Your task to perform on an android device: turn off sleep mode Image 0: 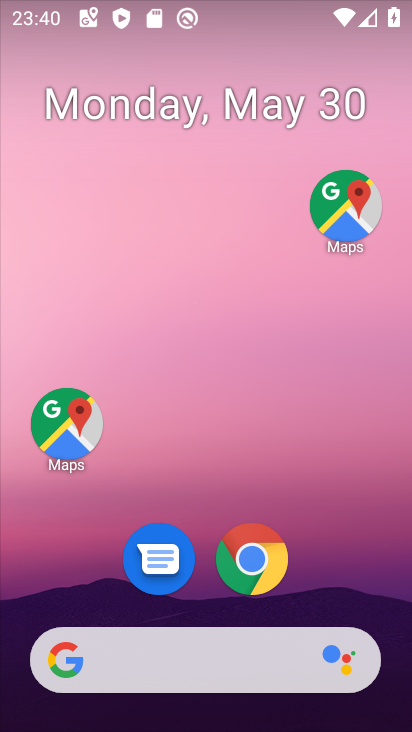
Step 0: drag from (353, 538) to (245, 154)
Your task to perform on an android device: turn off sleep mode Image 1: 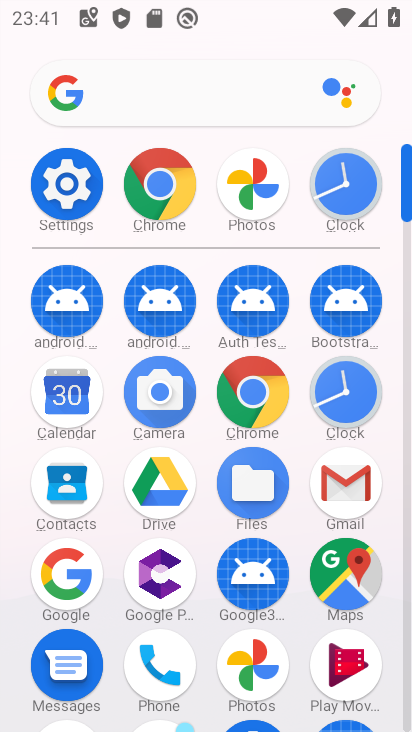
Step 1: click (53, 187)
Your task to perform on an android device: turn off sleep mode Image 2: 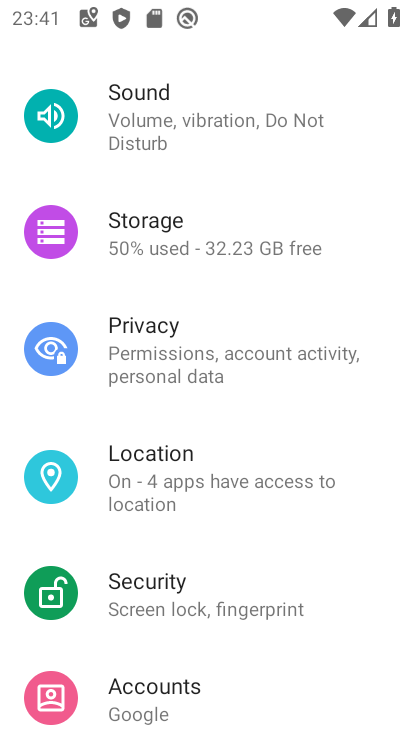
Step 2: drag from (230, 147) to (202, 562)
Your task to perform on an android device: turn off sleep mode Image 3: 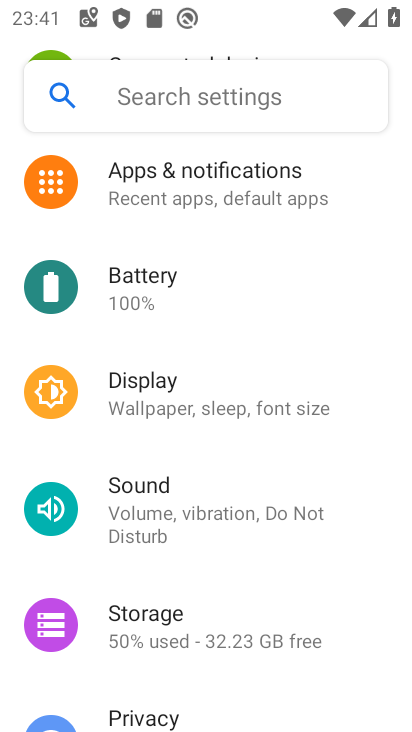
Step 3: click (178, 411)
Your task to perform on an android device: turn off sleep mode Image 4: 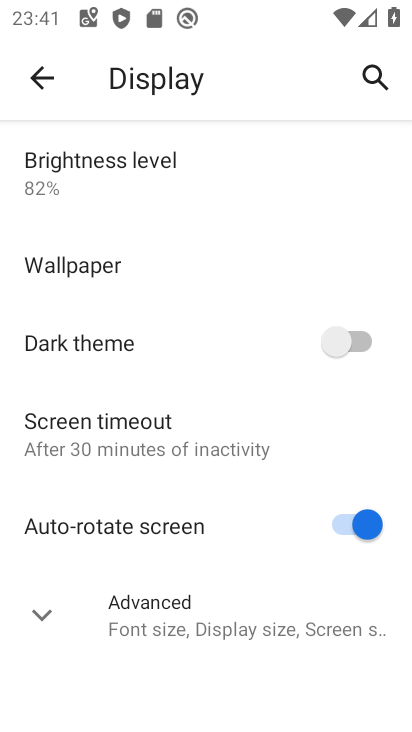
Step 4: click (124, 430)
Your task to perform on an android device: turn off sleep mode Image 5: 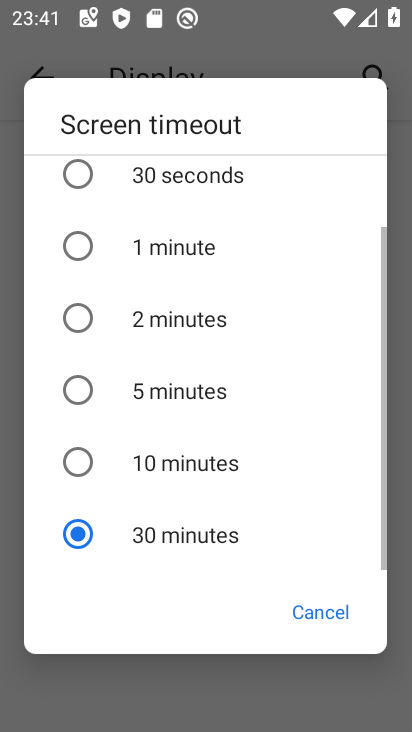
Step 5: task complete